Your task to perform on an android device: What is the news today? Image 0: 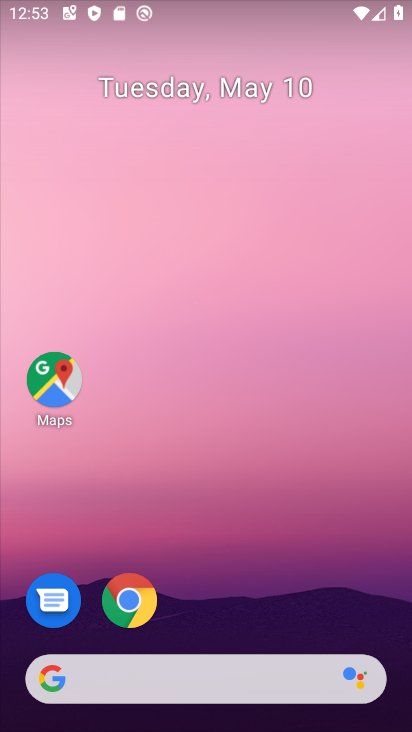
Step 0: drag from (34, 233) to (364, 250)
Your task to perform on an android device: What is the news today? Image 1: 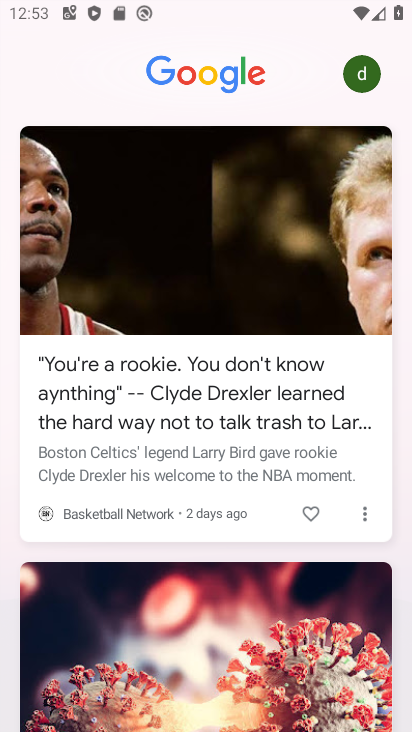
Step 1: task complete